Your task to perform on an android device: Open Android settings Image 0: 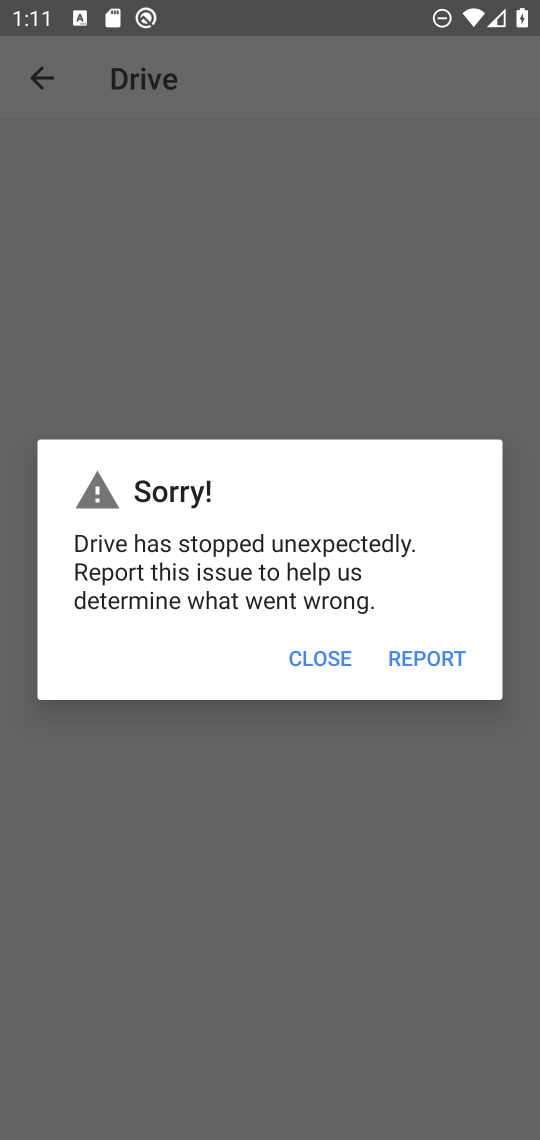
Step 0: press home button
Your task to perform on an android device: Open Android settings Image 1: 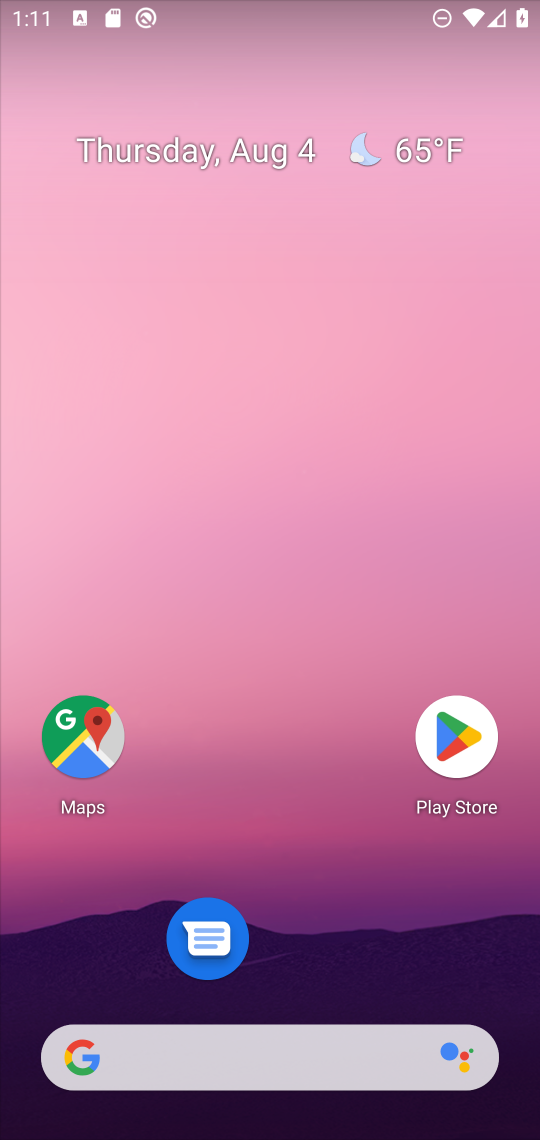
Step 1: drag from (26, 1082) to (329, 309)
Your task to perform on an android device: Open Android settings Image 2: 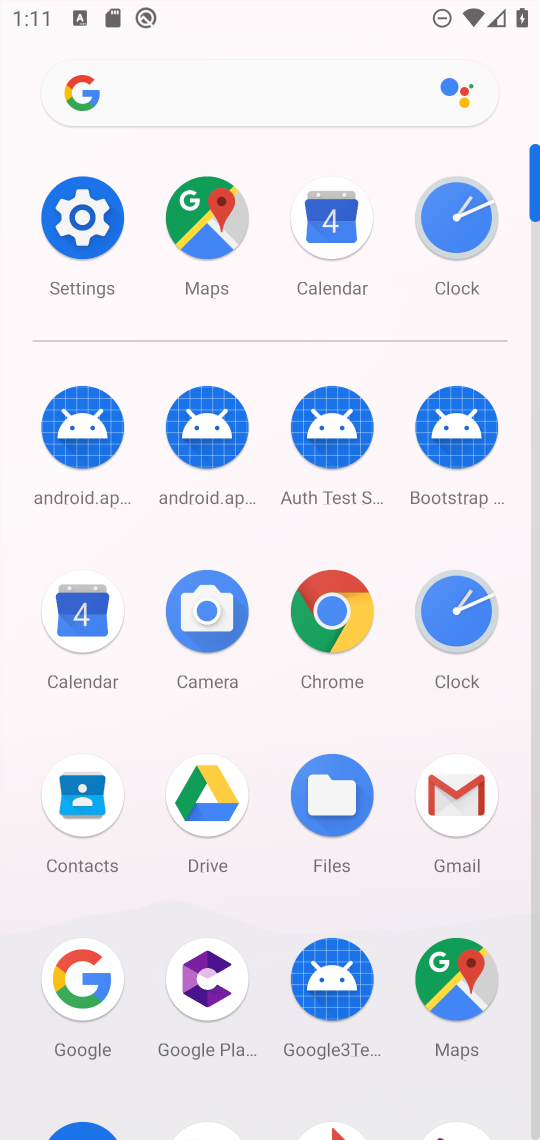
Step 2: click (107, 221)
Your task to perform on an android device: Open Android settings Image 3: 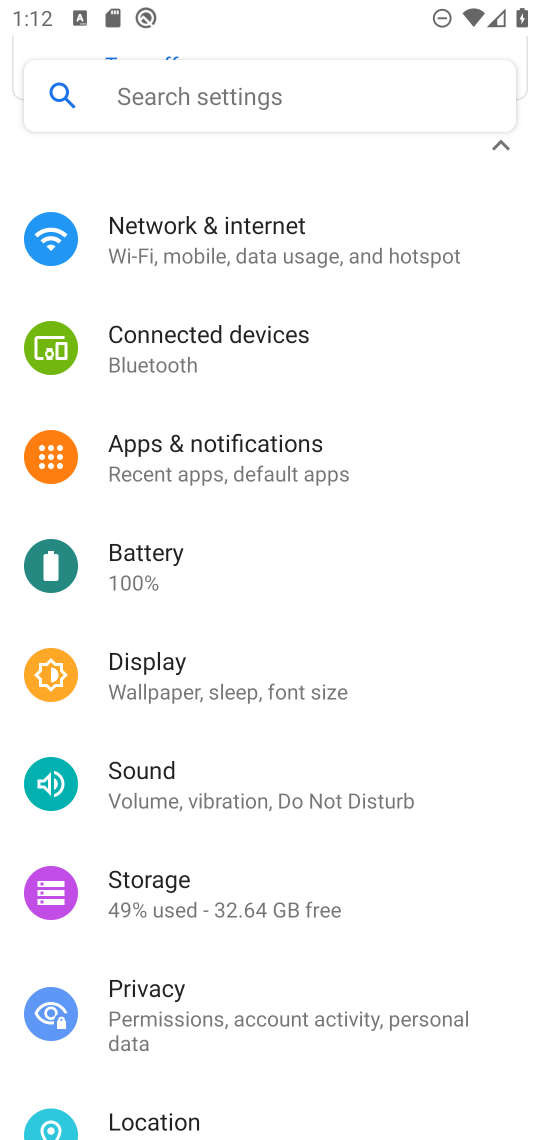
Step 3: drag from (378, 947) to (359, 157)
Your task to perform on an android device: Open Android settings Image 4: 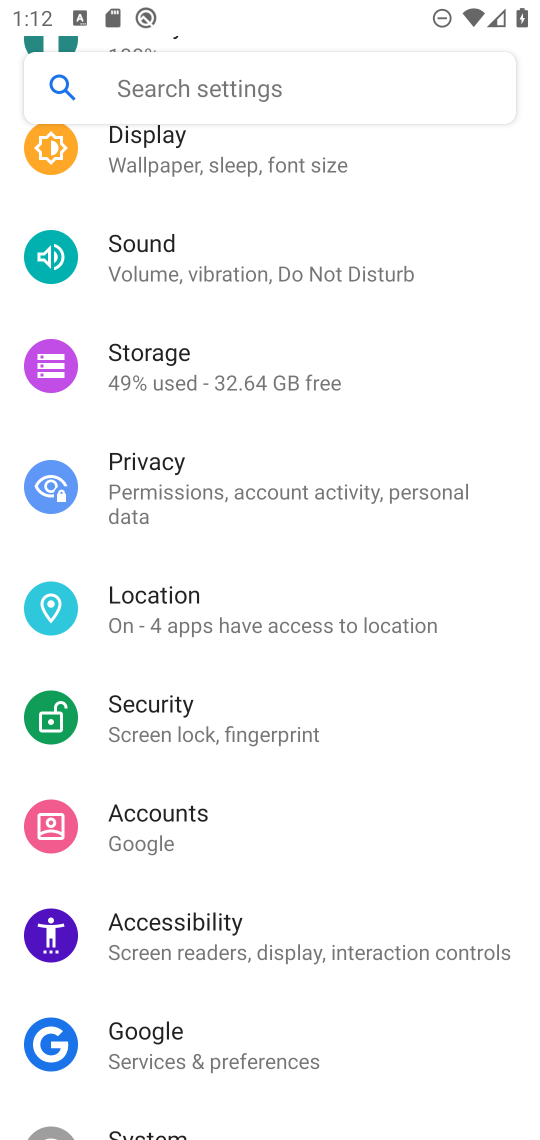
Step 4: drag from (296, 1096) to (318, 106)
Your task to perform on an android device: Open Android settings Image 5: 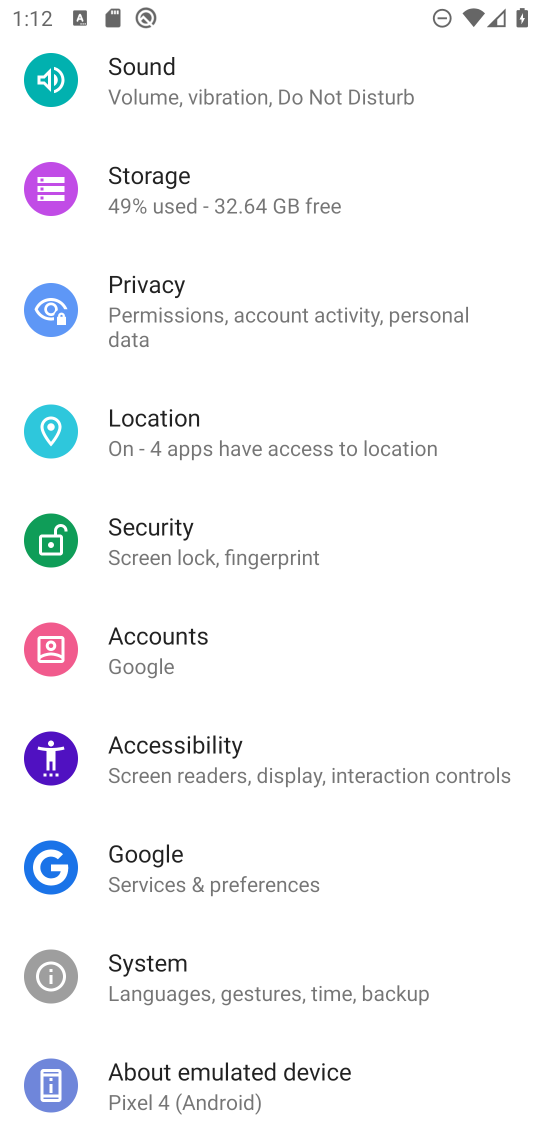
Step 5: drag from (386, 936) to (448, 31)
Your task to perform on an android device: Open Android settings Image 6: 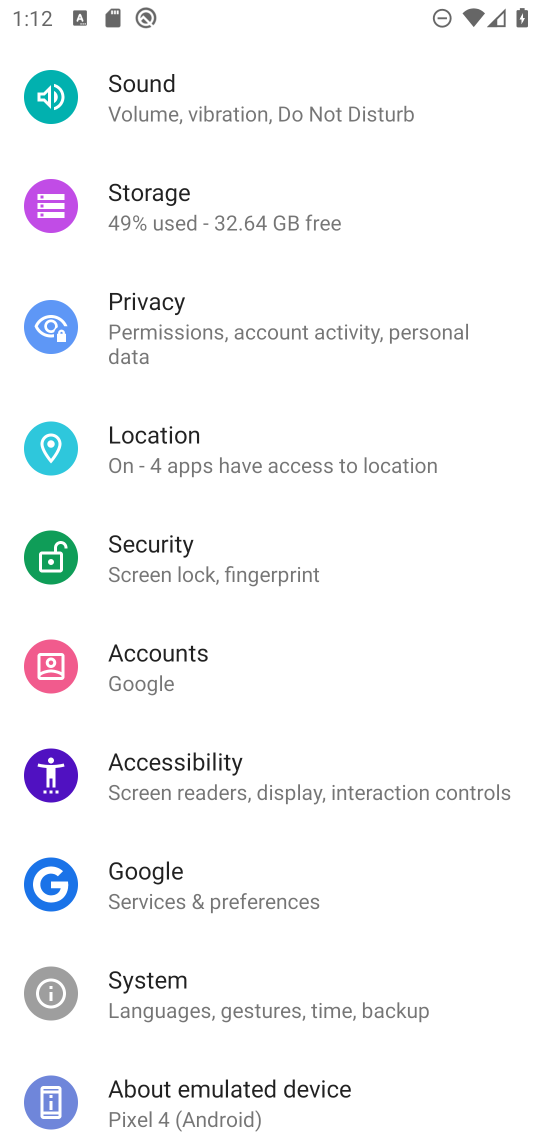
Step 6: drag from (371, 856) to (418, 28)
Your task to perform on an android device: Open Android settings Image 7: 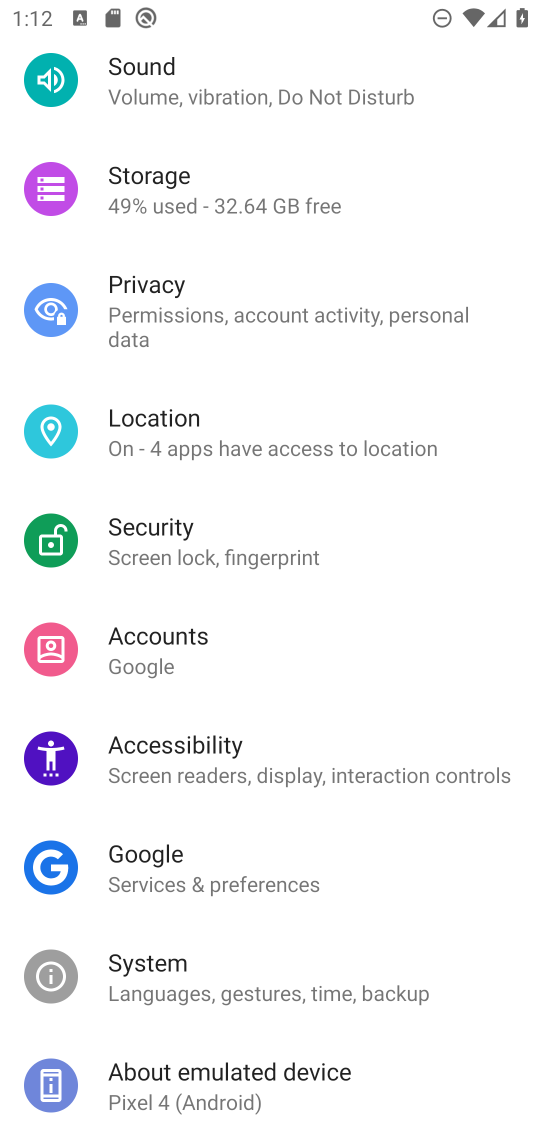
Step 7: drag from (391, 1104) to (385, 79)
Your task to perform on an android device: Open Android settings Image 8: 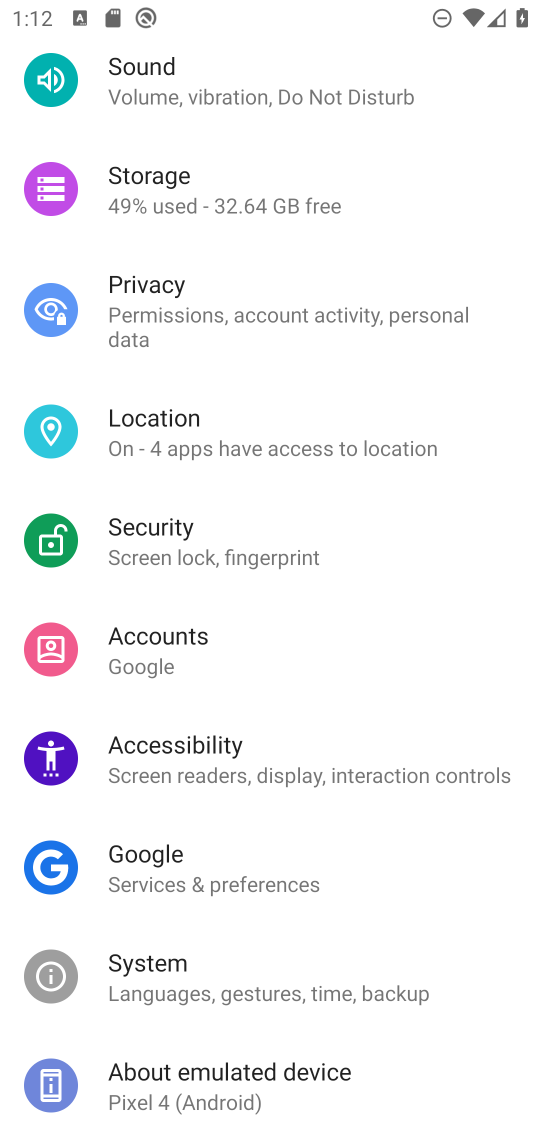
Step 8: drag from (315, 1083) to (230, 931)
Your task to perform on an android device: Open Android settings Image 9: 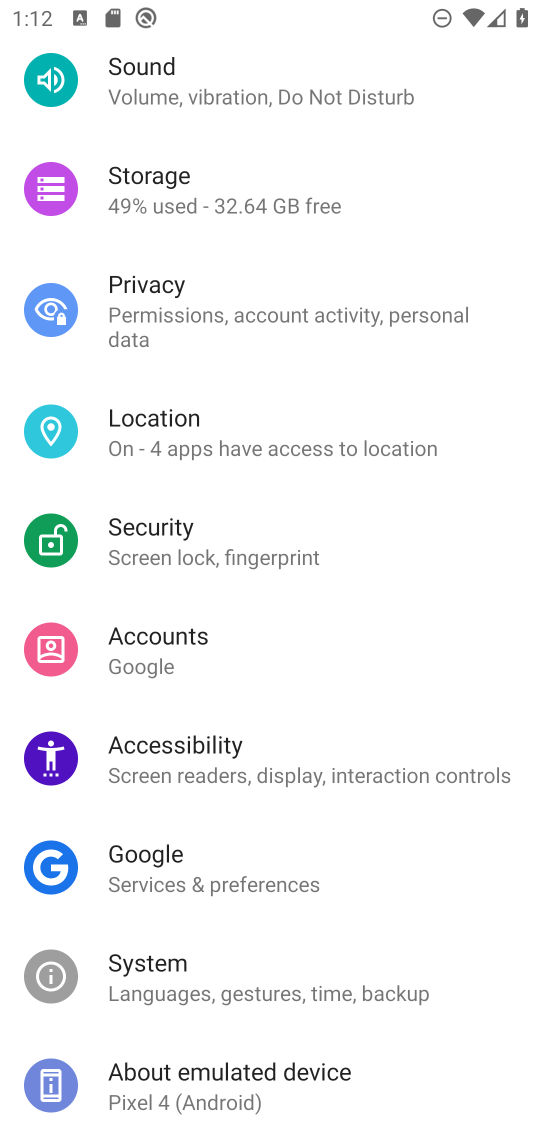
Step 9: click (288, 1097)
Your task to perform on an android device: Open Android settings Image 10: 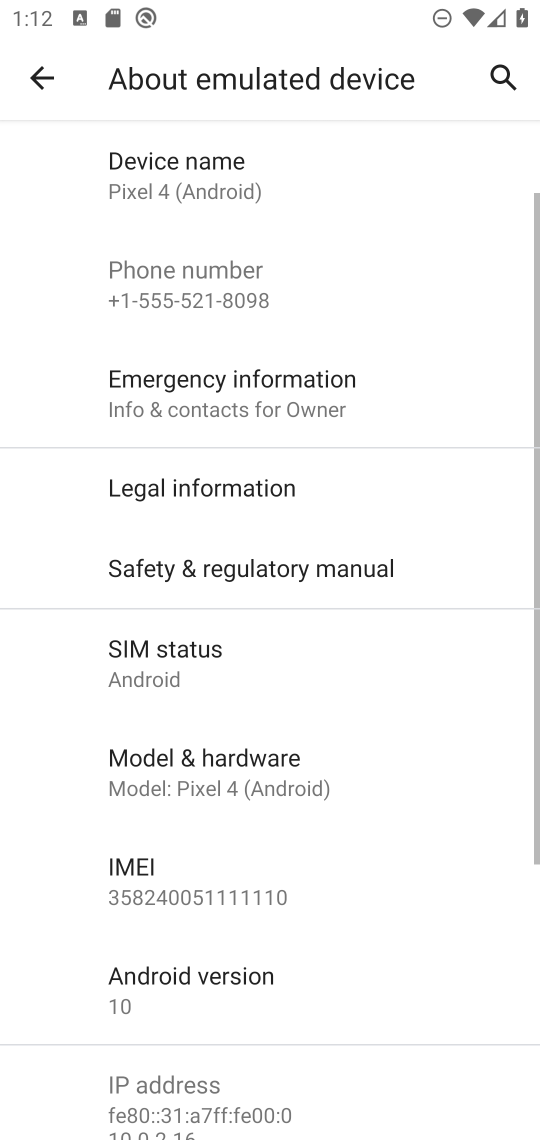
Step 10: task complete